Your task to perform on an android device: Open my contact list Image 0: 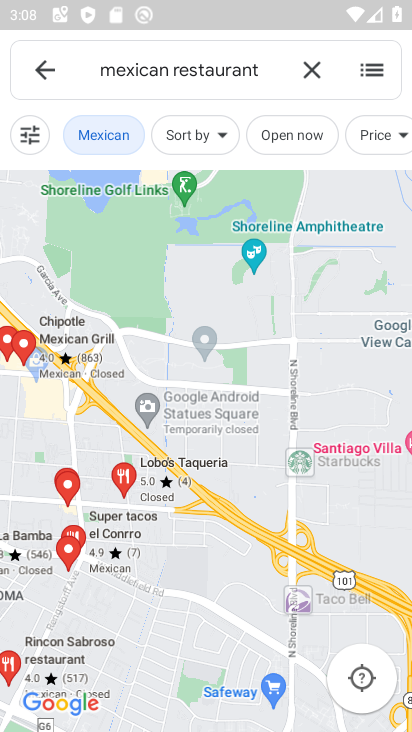
Step 0: drag from (244, 665) to (350, 9)
Your task to perform on an android device: Open my contact list Image 1: 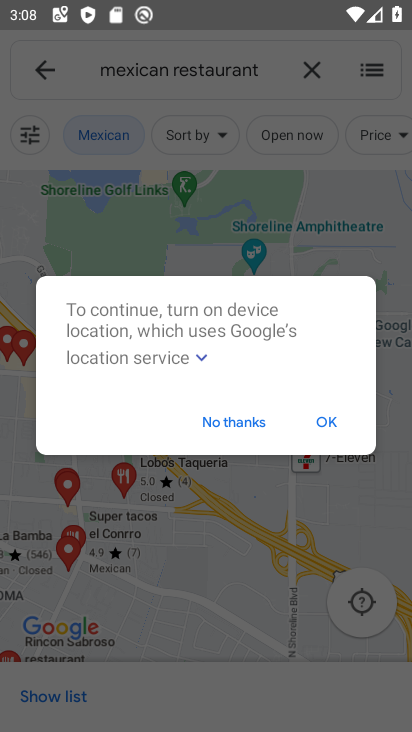
Step 1: press home button
Your task to perform on an android device: Open my contact list Image 2: 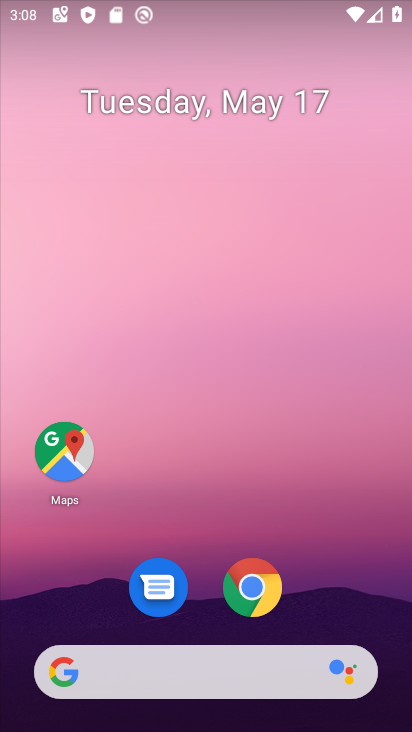
Step 2: drag from (250, 640) to (405, 519)
Your task to perform on an android device: Open my contact list Image 3: 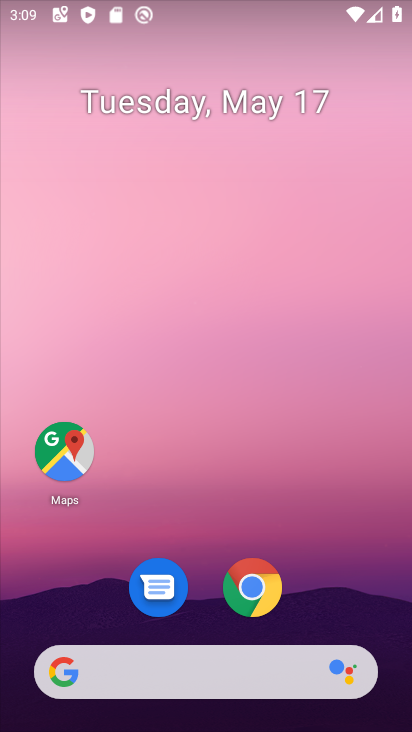
Step 3: drag from (261, 532) to (270, 82)
Your task to perform on an android device: Open my contact list Image 4: 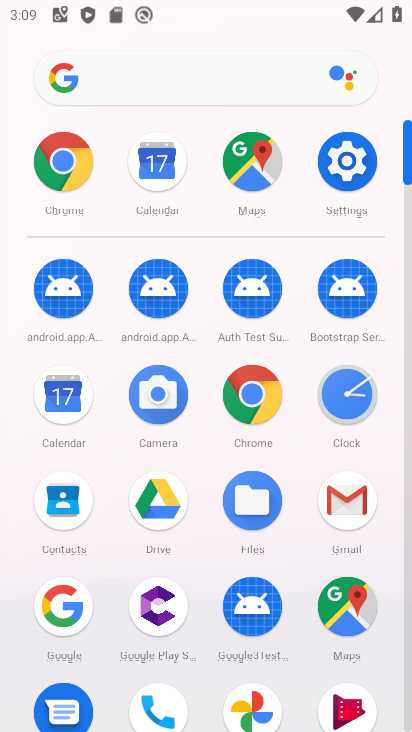
Step 4: click (47, 505)
Your task to perform on an android device: Open my contact list Image 5: 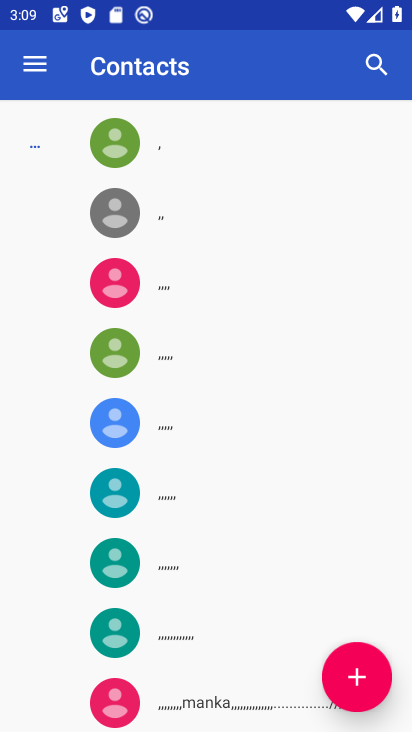
Step 5: task complete